Your task to perform on an android device: change timer sound Image 0: 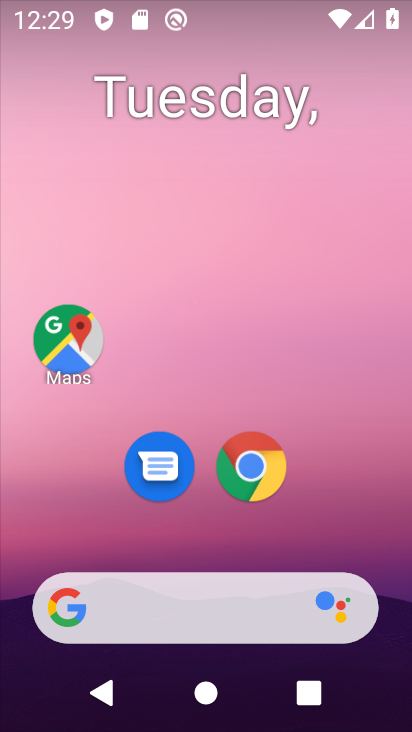
Step 0: drag from (374, 519) to (373, 164)
Your task to perform on an android device: change timer sound Image 1: 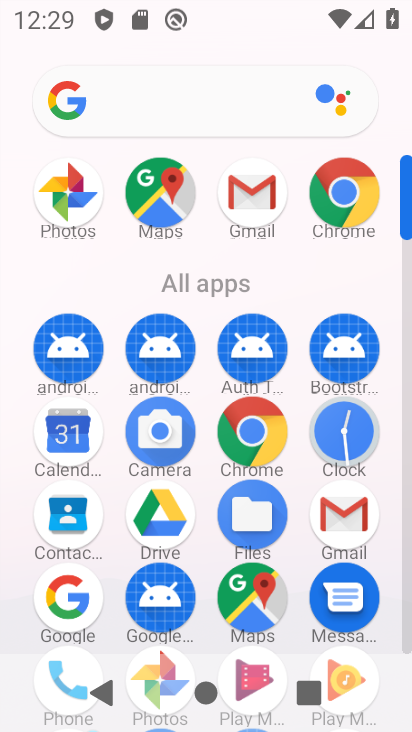
Step 1: click (362, 437)
Your task to perform on an android device: change timer sound Image 2: 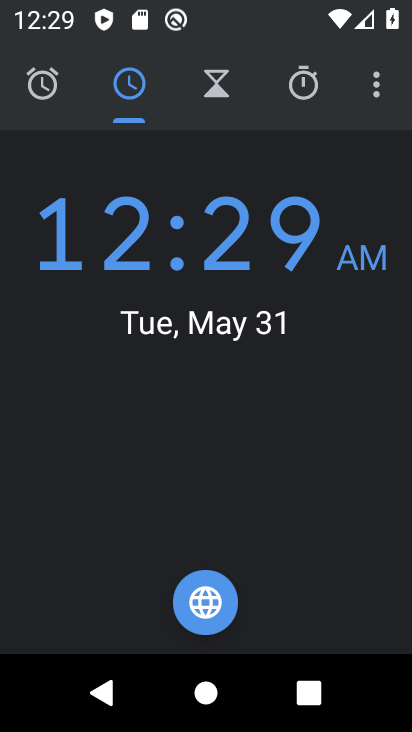
Step 2: click (379, 93)
Your task to perform on an android device: change timer sound Image 3: 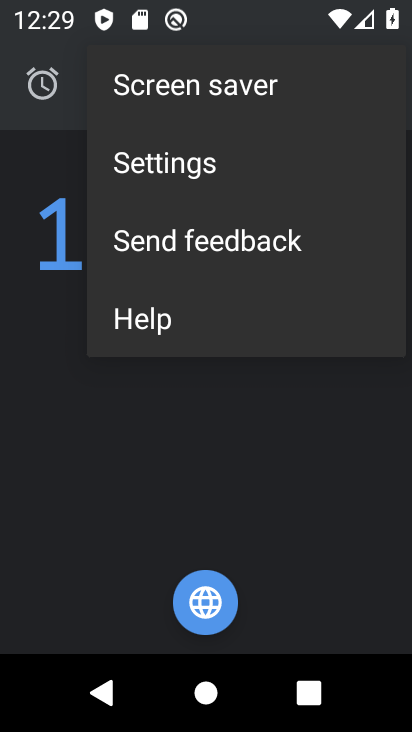
Step 3: click (236, 176)
Your task to perform on an android device: change timer sound Image 4: 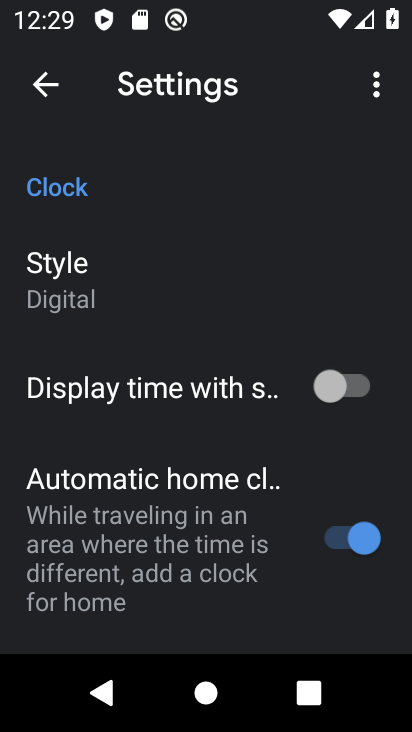
Step 4: drag from (286, 536) to (295, 381)
Your task to perform on an android device: change timer sound Image 5: 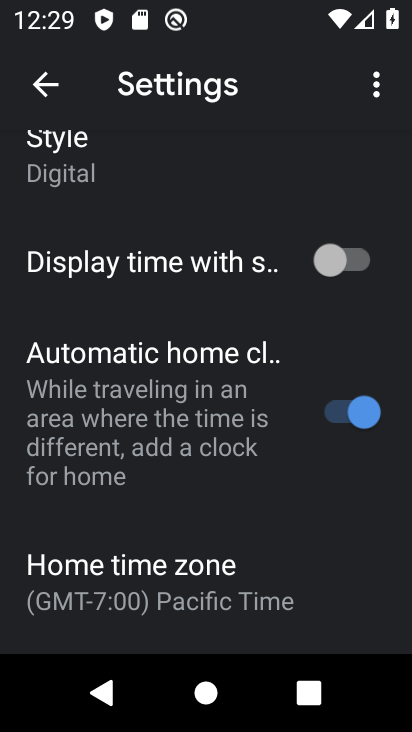
Step 5: drag from (274, 540) to (267, 442)
Your task to perform on an android device: change timer sound Image 6: 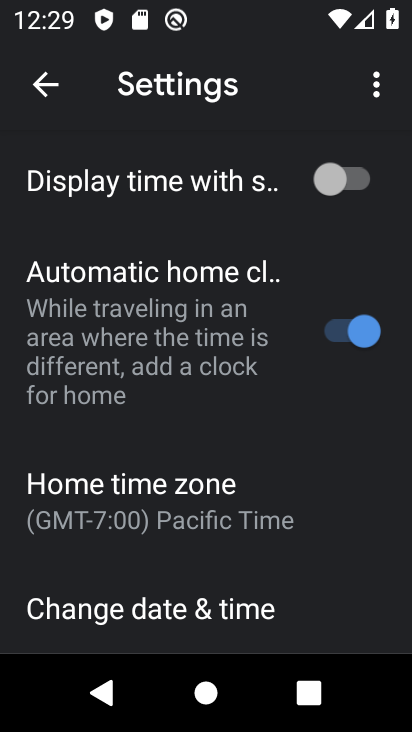
Step 6: drag from (334, 590) to (335, 510)
Your task to perform on an android device: change timer sound Image 7: 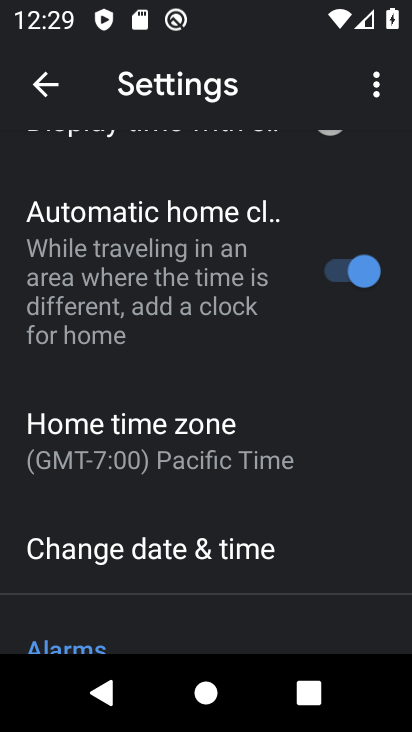
Step 7: drag from (330, 567) to (334, 488)
Your task to perform on an android device: change timer sound Image 8: 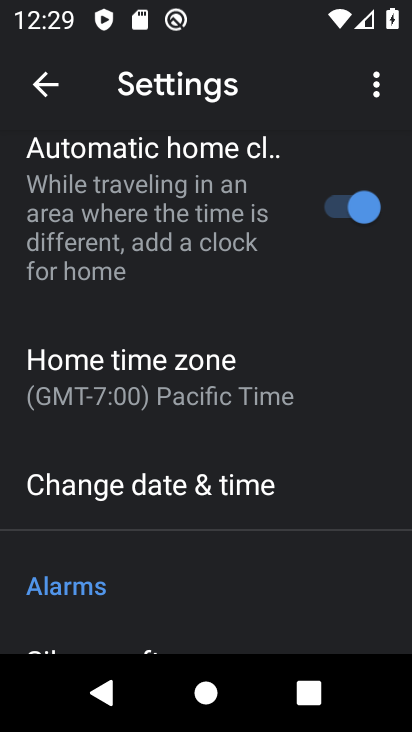
Step 8: drag from (328, 553) to (334, 442)
Your task to perform on an android device: change timer sound Image 9: 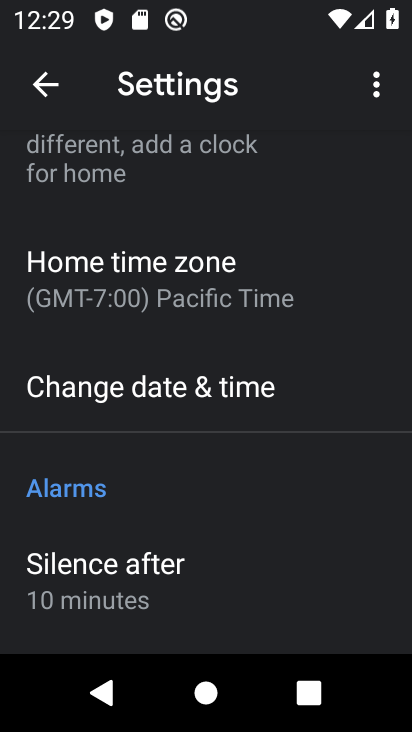
Step 9: drag from (332, 537) to (330, 442)
Your task to perform on an android device: change timer sound Image 10: 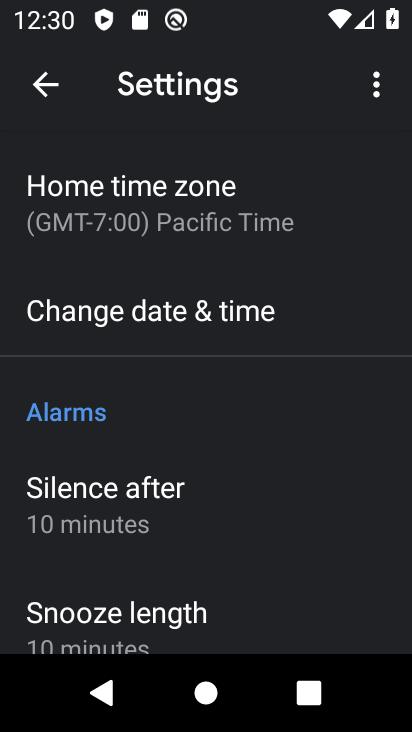
Step 10: drag from (324, 536) to (328, 438)
Your task to perform on an android device: change timer sound Image 11: 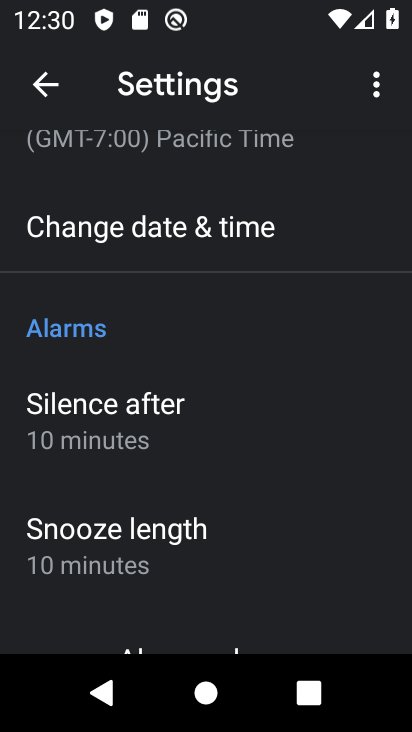
Step 11: drag from (314, 525) to (319, 445)
Your task to perform on an android device: change timer sound Image 12: 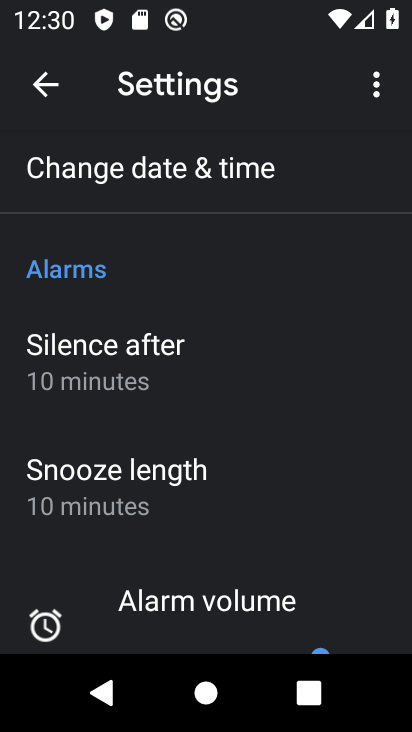
Step 12: drag from (323, 551) to (332, 446)
Your task to perform on an android device: change timer sound Image 13: 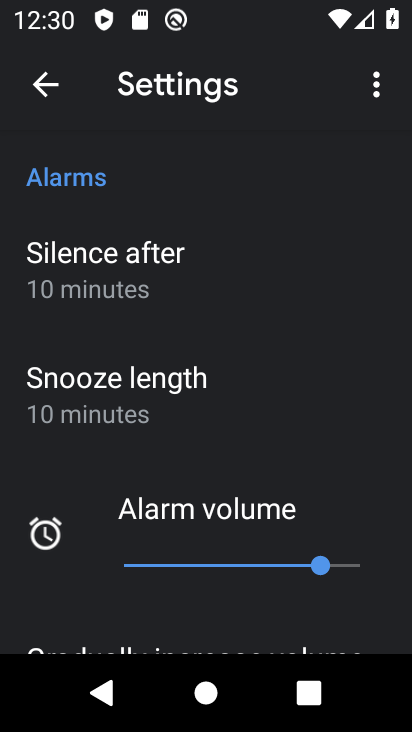
Step 13: drag from (339, 593) to (347, 487)
Your task to perform on an android device: change timer sound Image 14: 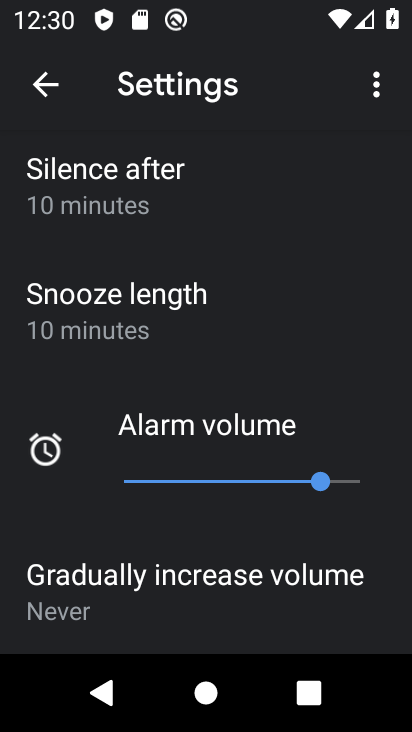
Step 14: drag from (345, 594) to (349, 496)
Your task to perform on an android device: change timer sound Image 15: 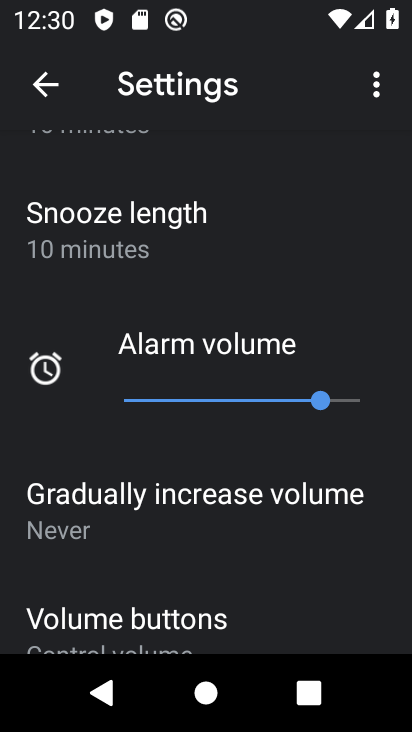
Step 15: drag from (341, 579) to (350, 492)
Your task to perform on an android device: change timer sound Image 16: 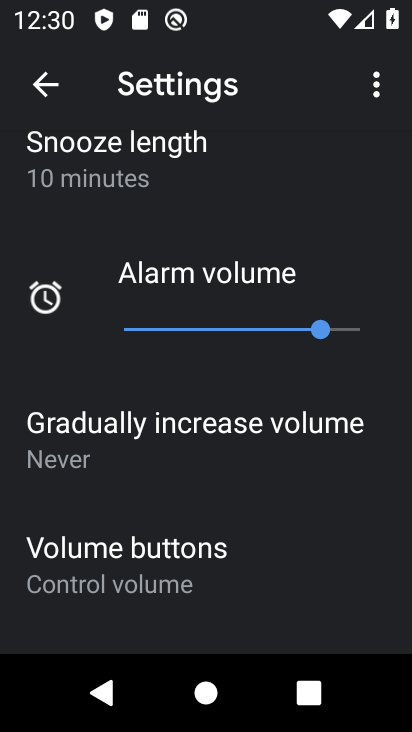
Step 16: drag from (348, 578) to (348, 483)
Your task to perform on an android device: change timer sound Image 17: 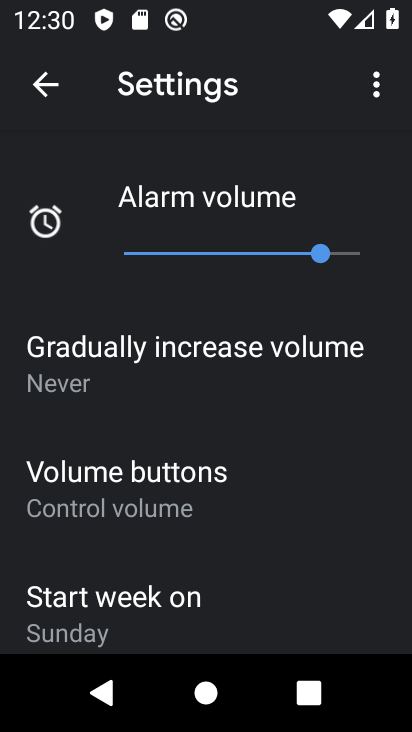
Step 17: drag from (338, 581) to (347, 471)
Your task to perform on an android device: change timer sound Image 18: 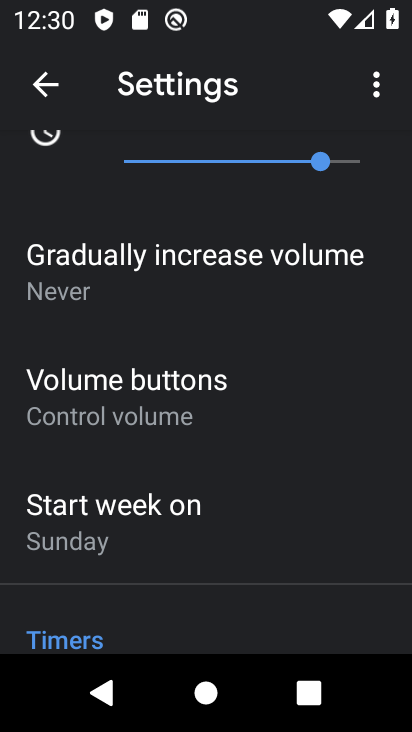
Step 18: drag from (331, 575) to (342, 451)
Your task to perform on an android device: change timer sound Image 19: 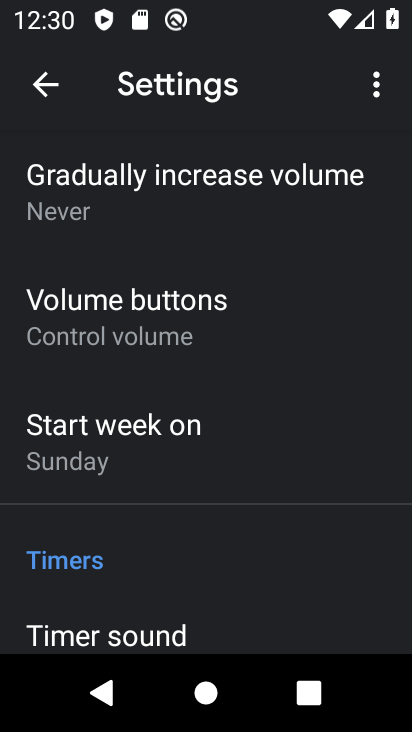
Step 19: drag from (346, 571) to (359, 475)
Your task to perform on an android device: change timer sound Image 20: 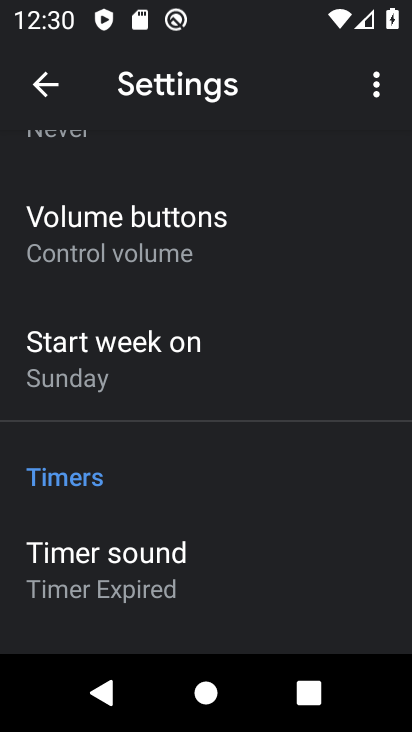
Step 20: click (182, 577)
Your task to perform on an android device: change timer sound Image 21: 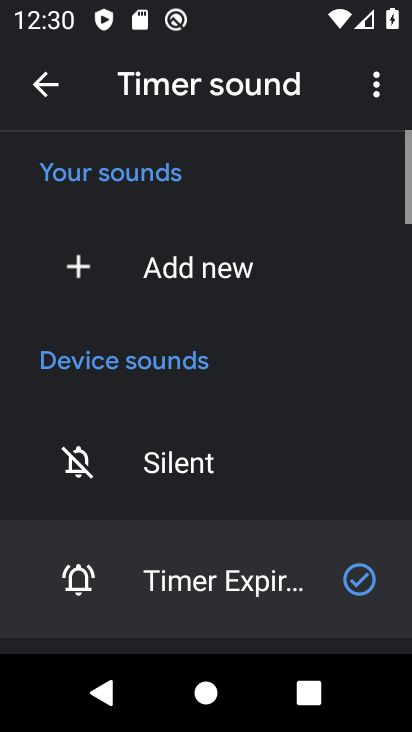
Step 21: click (177, 479)
Your task to perform on an android device: change timer sound Image 22: 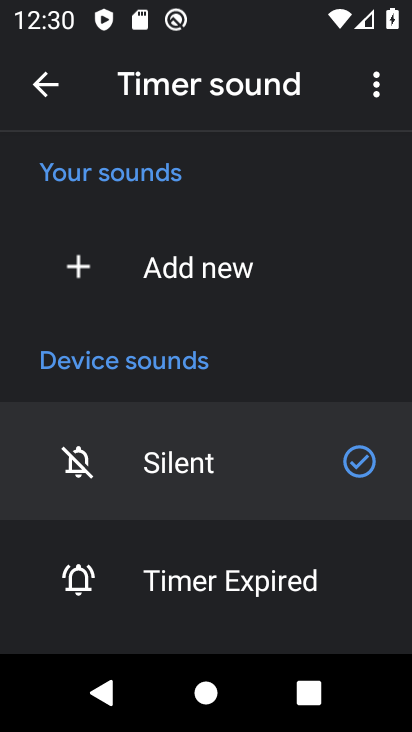
Step 22: task complete